Your task to perform on an android device: turn on notifications settings in the gmail app Image 0: 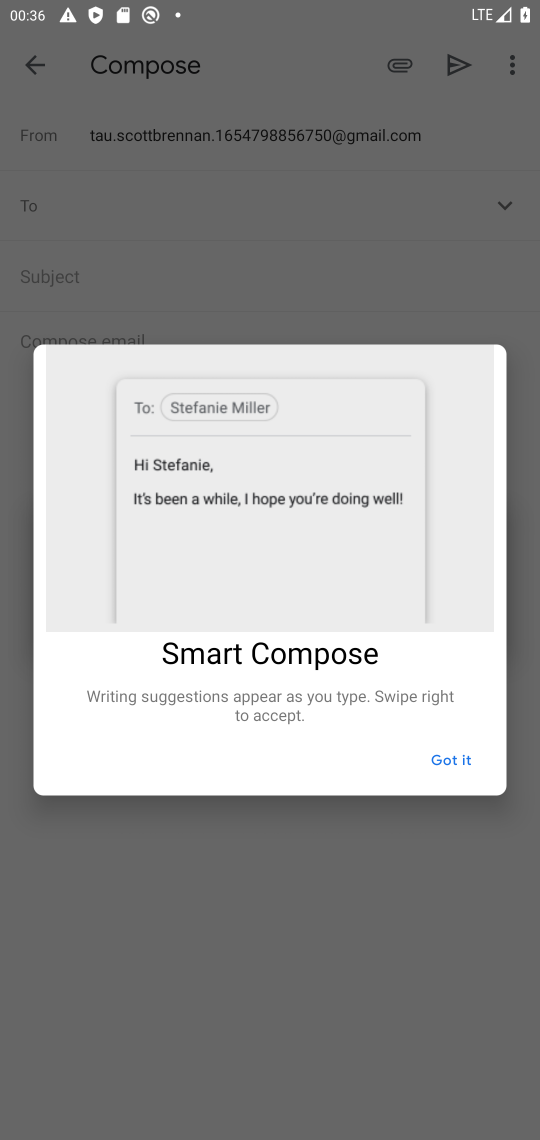
Step 0: press home button
Your task to perform on an android device: turn on notifications settings in the gmail app Image 1: 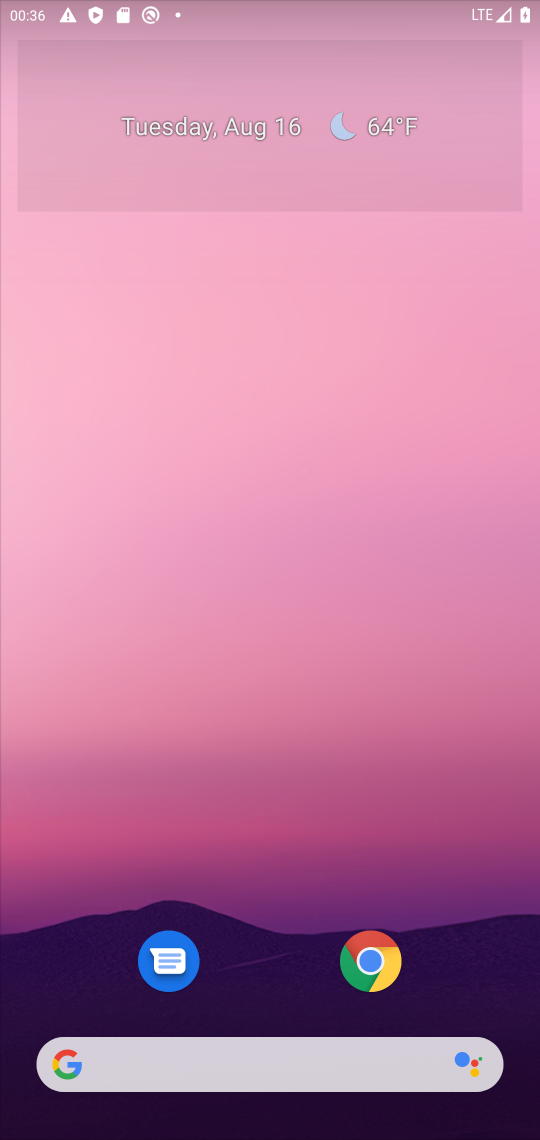
Step 1: drag from (197, 1073) to (442, 13)
Your task to perform on an android device: turn on notifications settings in the gmail app Image 2: 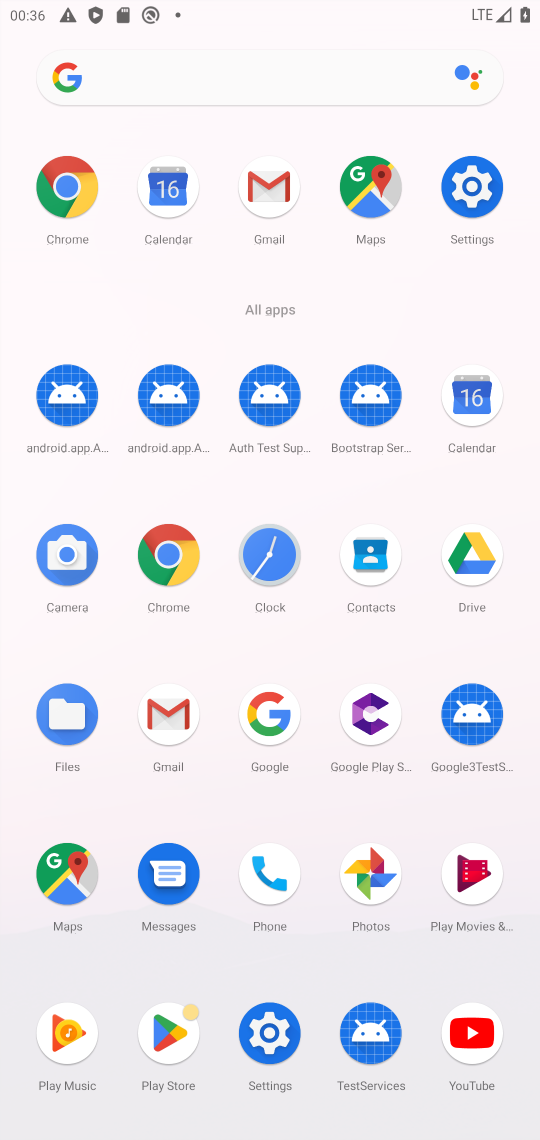
Step 2: click (279, 176)
Your task to perform on an android device: turn on notifications settings in the gmail app Image 3: 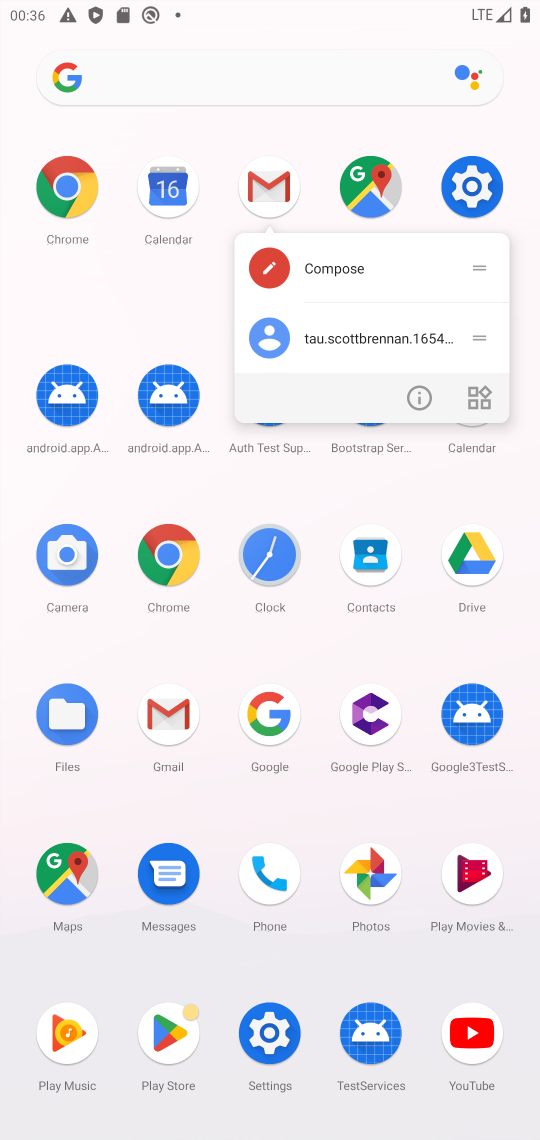
Step 3: click (412, 401)
Your task to perform on an android device: turn on notifications settings in the gmail app Image 4: 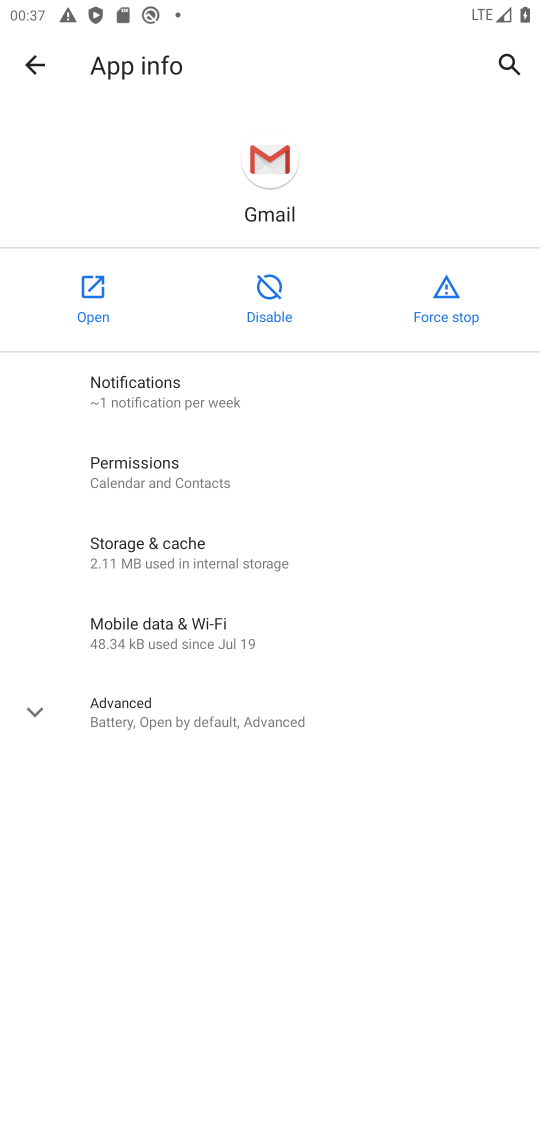
Step 4: click (212, 377)
Your task to perform on an android device: turn on notifications settings in the gmail app Image 5: 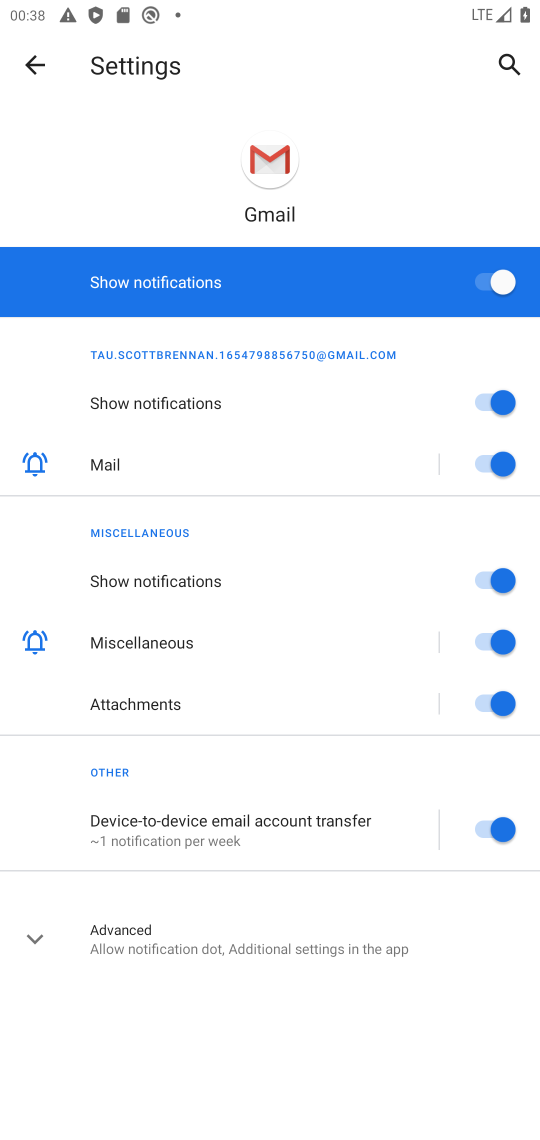
Step 5: task complete